Your task to perform on an android device: move a message to another label in the gmail app Image 0: 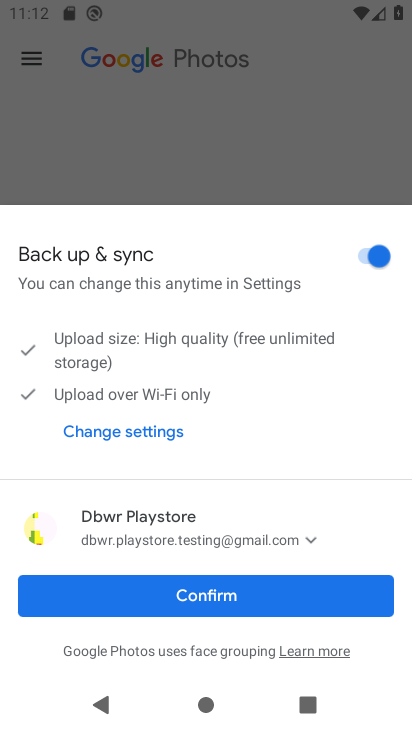
Step 0: press home button
Your task to perform on an android device: move a message to another label in the gmail app Image 1: 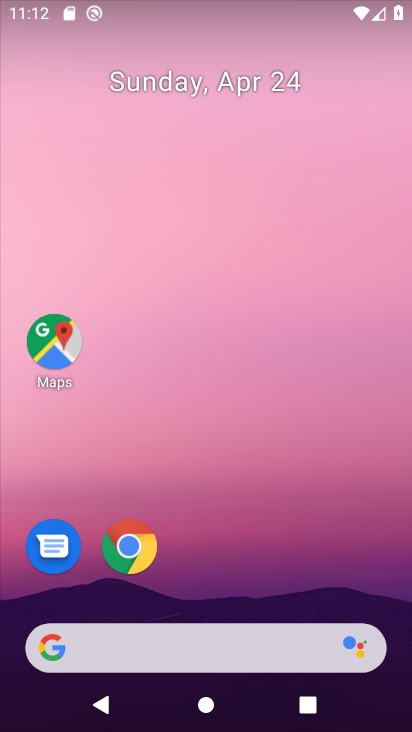
Step 1: drag from (221, 443) to (296, 27)
Your task to perform on an android device: move a message to another label in the gmail app Image 2: 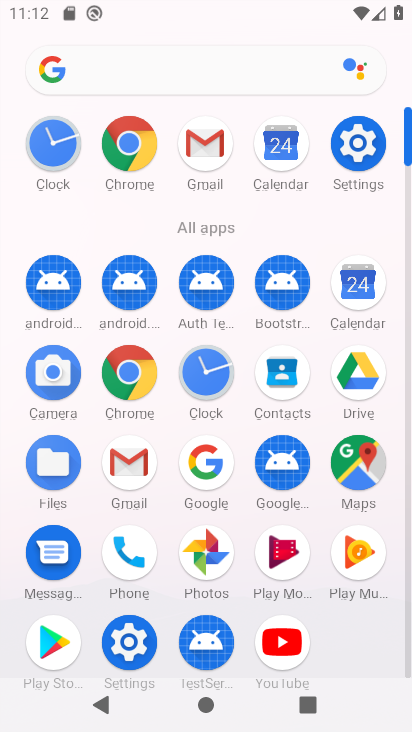
Step 2: click (200, 152)
Your task to perform on an android device: move a message to another label in the gmail app Image 3: 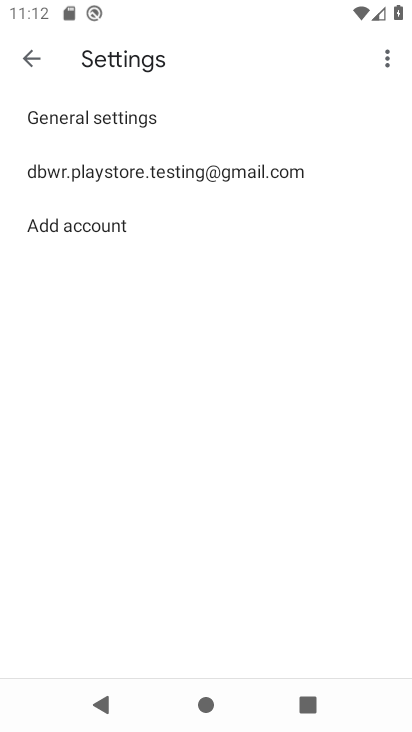
Step 3: click (30, 61)
Your task to perform on an android device: move a message to another label in the gmail app Image 4: 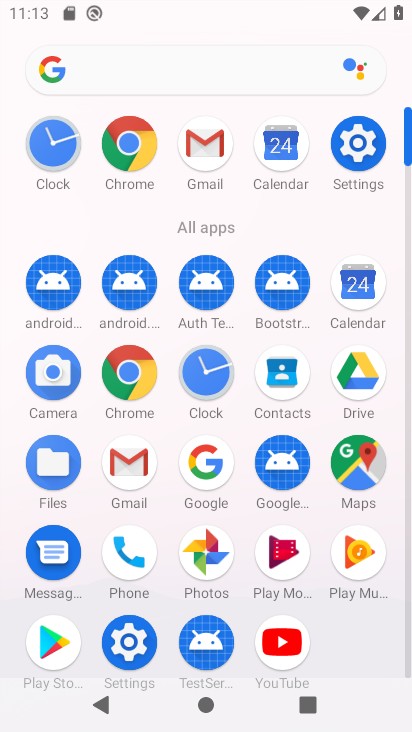
Step 4: click (202, 140)
Your task to perform on an android device: move a message to another label in the gmail app Image 5: 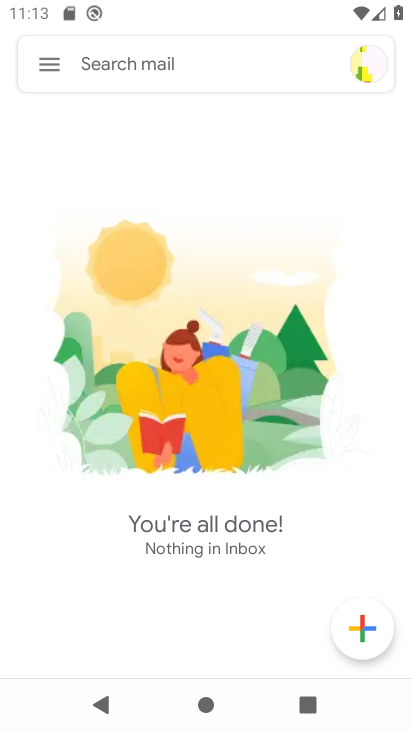
Step 5: task complete